Your task to perform on an android device: toggle sleep mode Image 0: 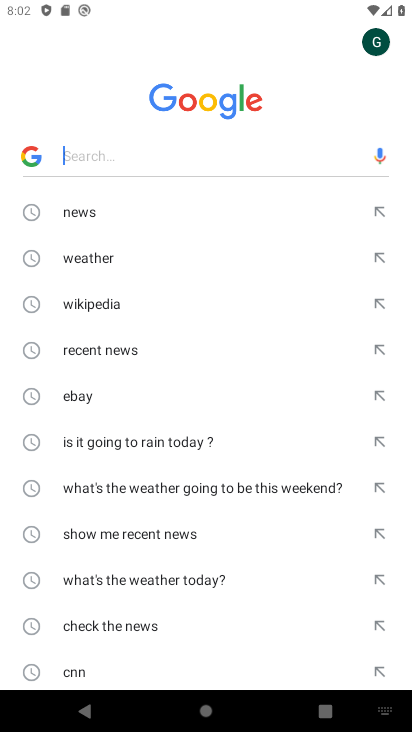
Step 0: press home button
Your task to perform on an android device: toggle sleep mode Image 1: 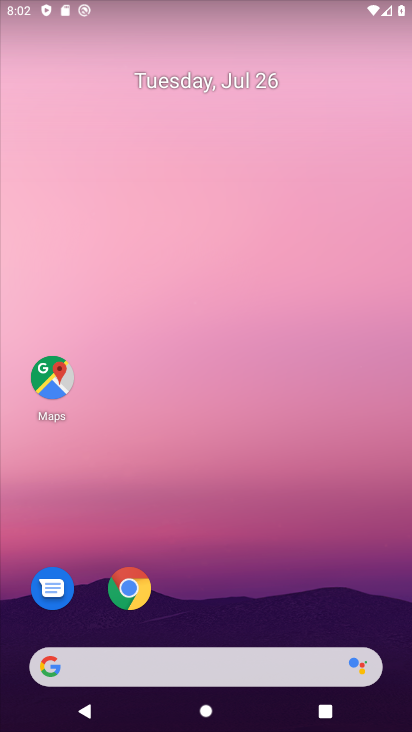
Step 1: drag from (273, 578) to (225, 87)
Your task to perform on an android device: toggle sleep mode Image 2: 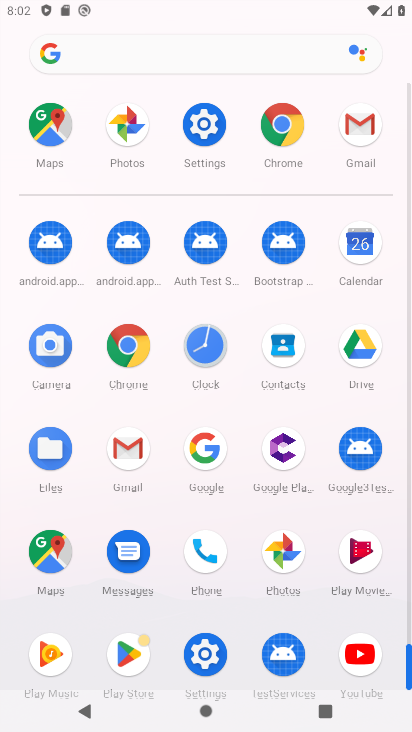
Step 2: click (205, 111)
Your task to perform on an android device: toggle sleep mode Image 3: 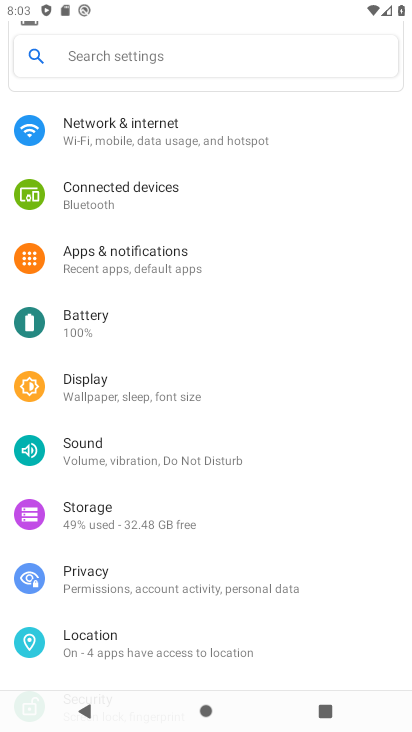
Step 3: click (95, 386)
Your task to perform on an android device: toggle sleep mode Image 4: 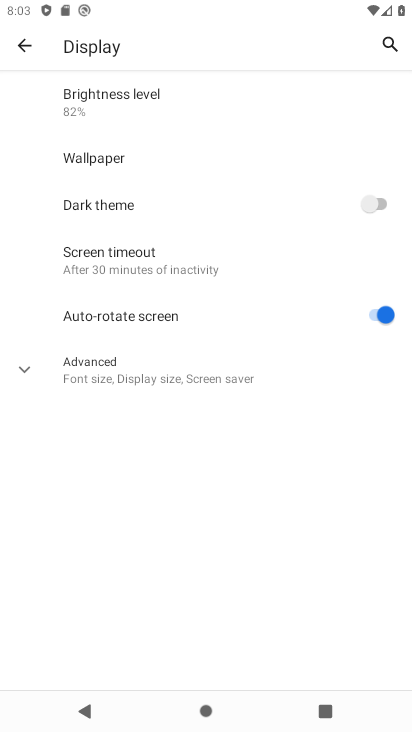
Step 4: click (154, 258)
Your task to perform on an android device: toggle sleep mode Image 5: 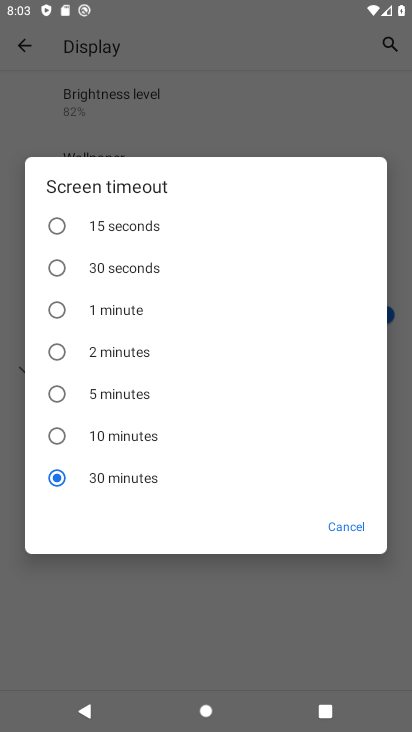
Step 5: click (98, 438)
Your task to perform on an android device: toggle sleep mode Image 6: 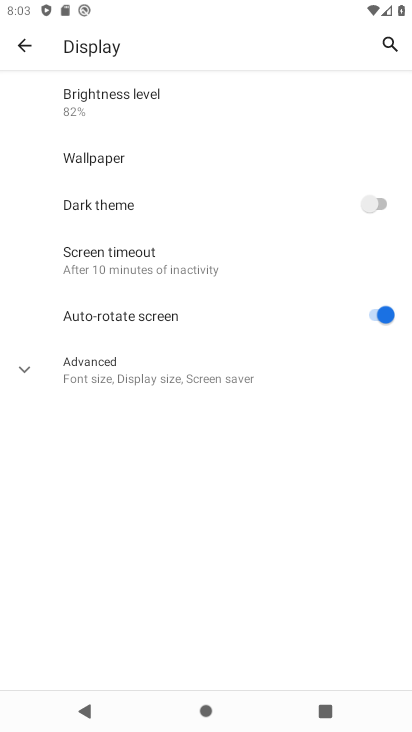
Step 6: task complete